Your task to perform on an android device: toggle airplane mode Image 0: 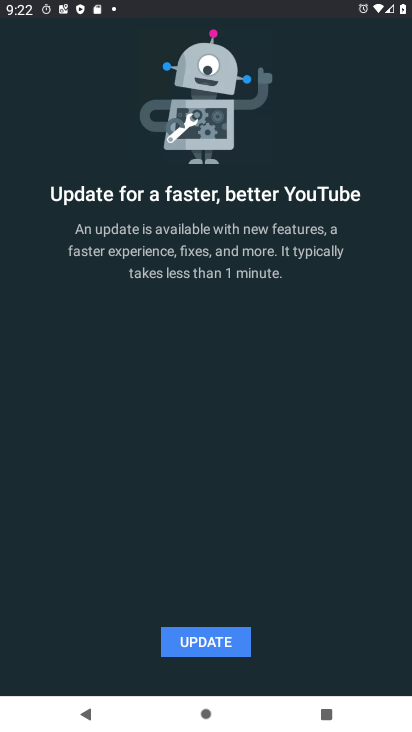
Step 0: drag from (351, 4) to (308, 403)
Your task to perform on an android device: toggle airplane mode Image 1: 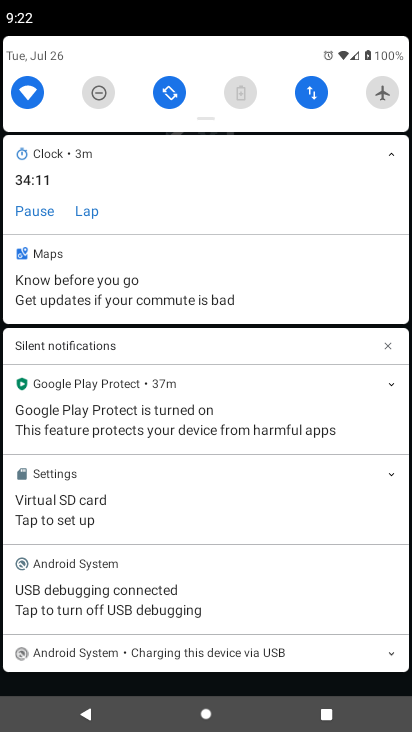
Step 1: drag from (249, 121) to (217, 504)
Your task to perform on an android device: toggle airplane mode Image 2: 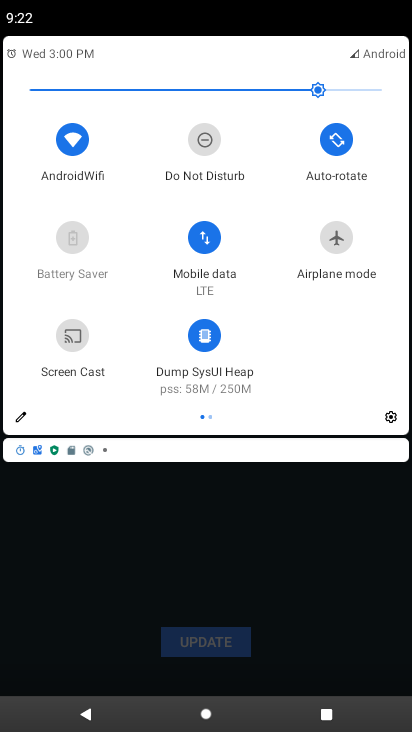
Step 2: click (338, 244)
Your task to perform on an android device: toggle airplane mode Image 3: 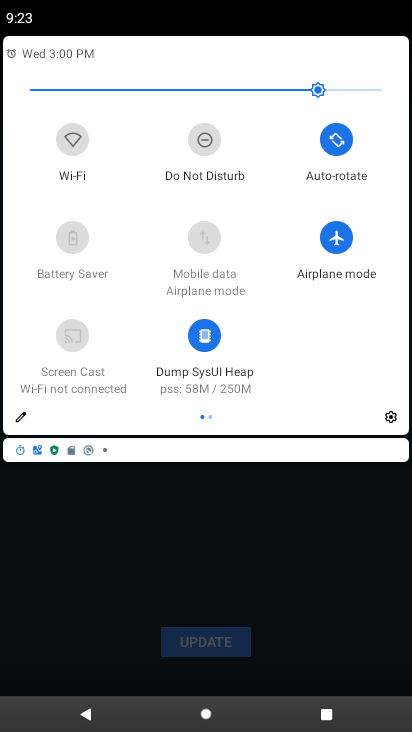
Step 3: task complete